Your task to perform on an android device: Open ESPN.com Image 0: 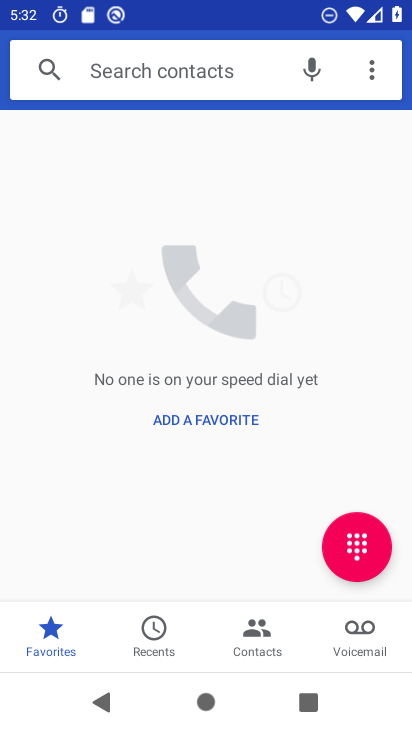
Step 0: press home button
Your task to perform on an android device: Open ESPN.com Image 1: 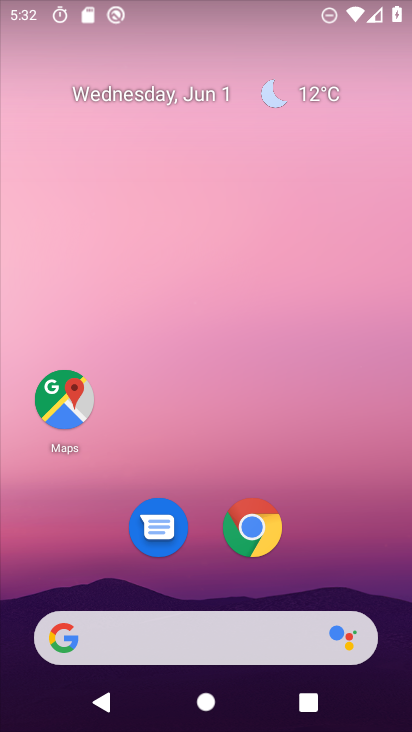
Step 1: click (253, 532)
Your task to perform on an android device: Open ESPN.com Image 2: 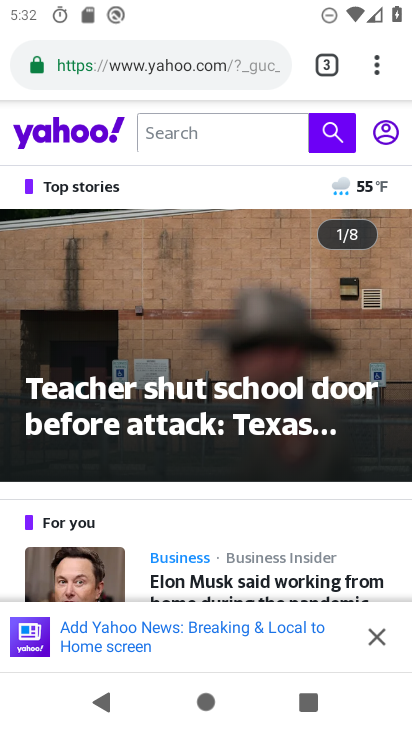
Step 2: click (326, 58)
Your task to perform on an android device: Open ESPN.com Image 3: 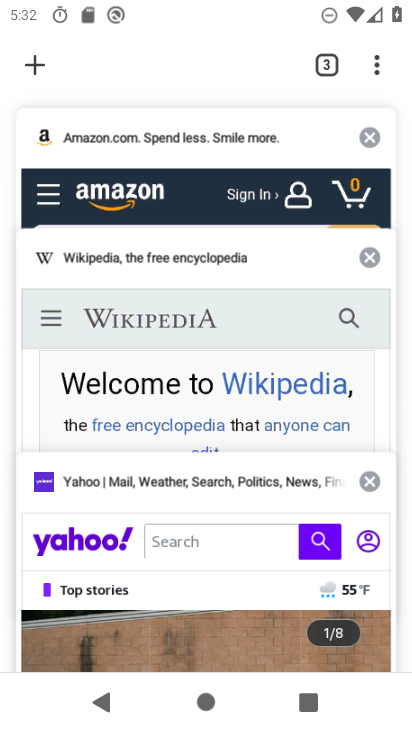
Step 3: click (35, 81)
Your task to perform on an android device: Open ESPN.com Image 4: 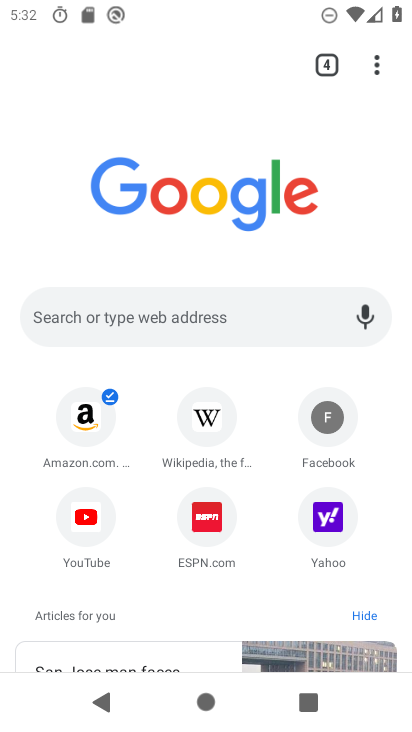
Step 4: click (196, 499)
Your task to perform on an android device: Open ESPN.com Image 5: 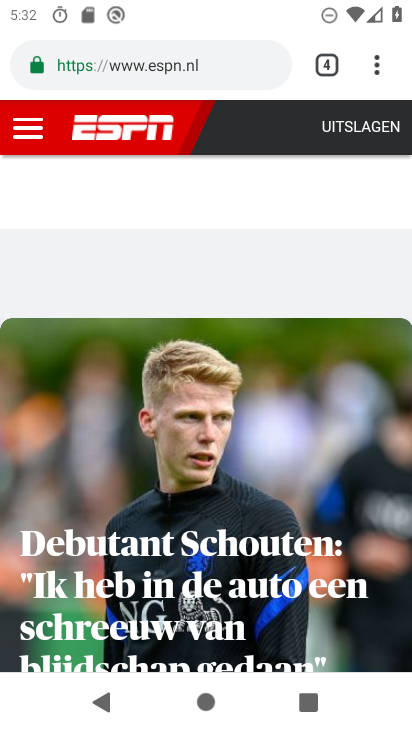
Step 5: task complete